Your task to perform on an android device: Go to wifi settings Image 0: 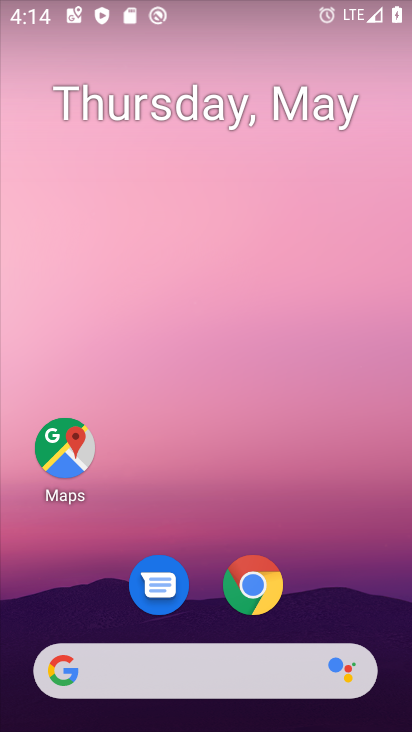
Step 0: drag from (276, 505) to (307, 31)
Your task to perform on an android device: Go to wifi settings Image 1: 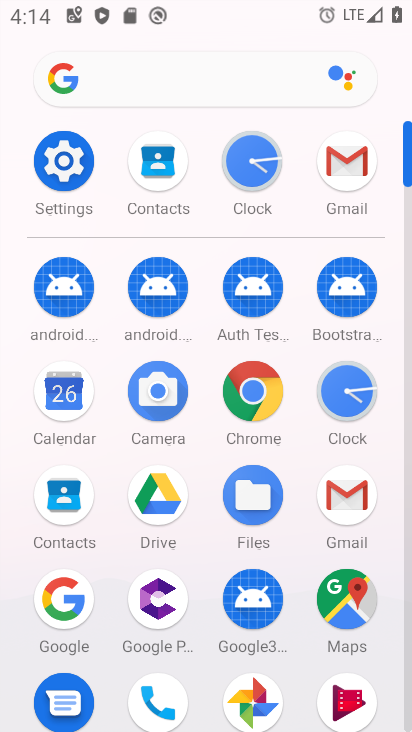
Step 1: click (64, 159)
Your task to perform on an android device: Go to wifi settings Image 2: 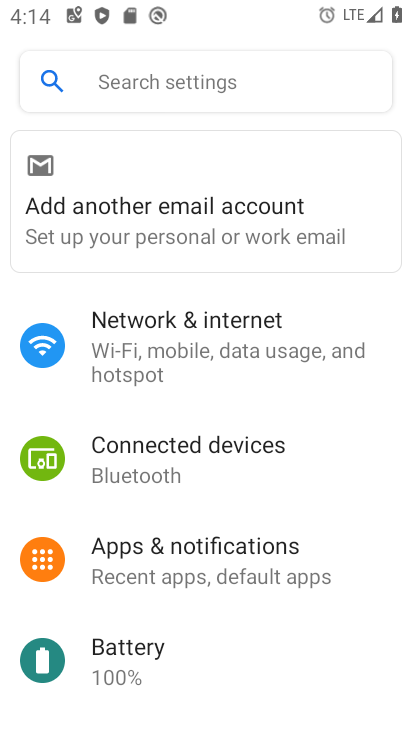
Step 2: click (193, 336)
Your task to perform on an android device: Go to wifi settings Image 3: 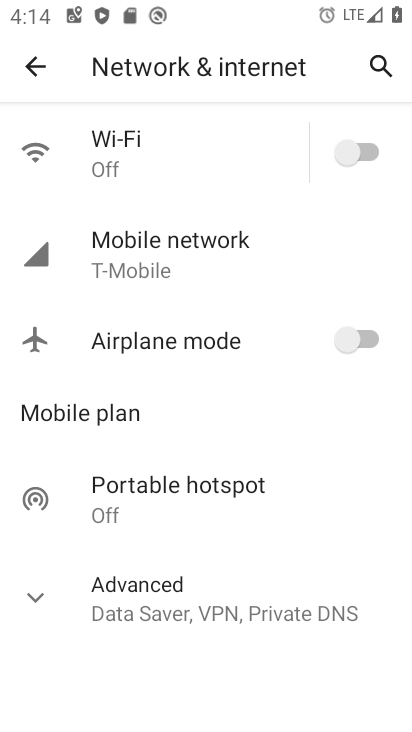
Step 3: click (174, 166)
Your task to perform on an android device: Go to wifi settings Image 4: 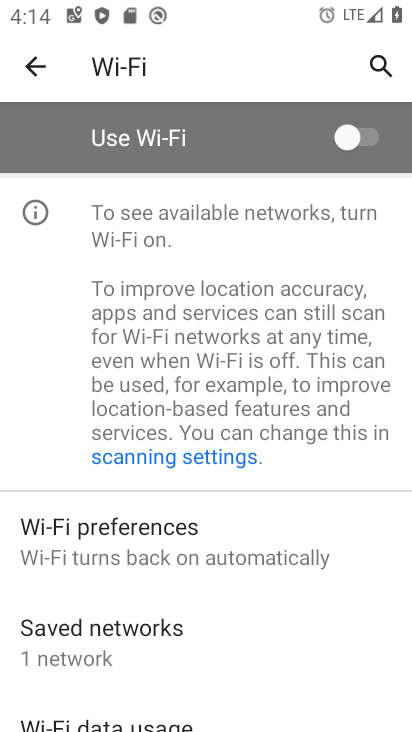
Step 4: task complete